Your task to perform on an android device: add a label to a message in the gmail app Image 0: 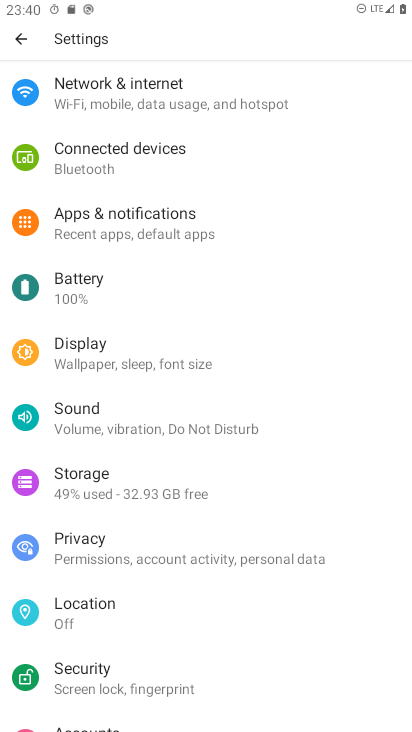
Step 0: press home button
Your task to perform on an android device: add a label to a message in the gmail app Image 1: 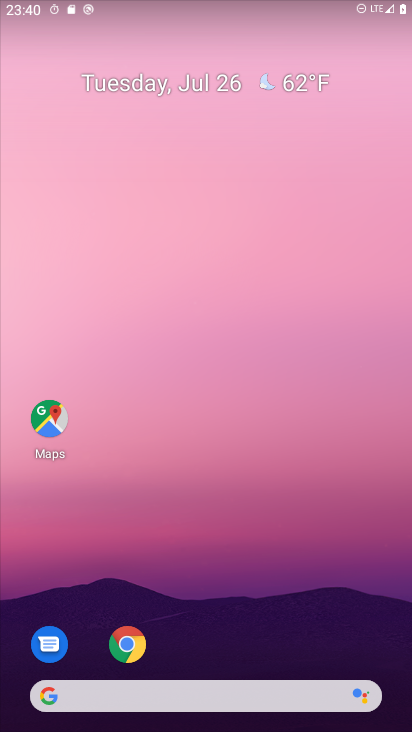
Step 1: drag from (235, 591) to (238, 7)
Your task to perform on an android device: add a label to a message in the gmail app Image 2: 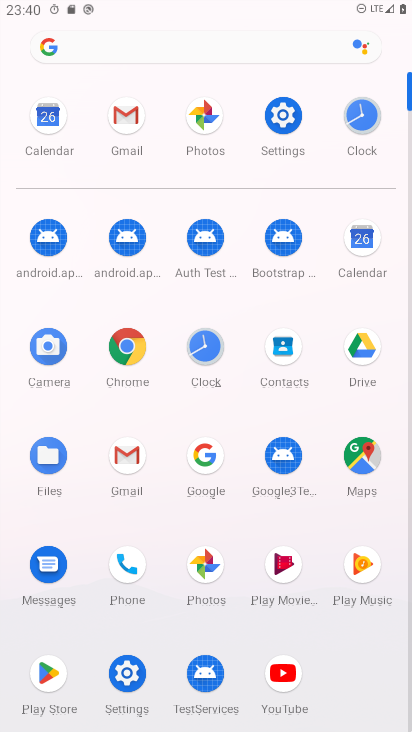
Step 2: click (121, 186)
Your task to perform on an android device: add a label to a message in the gmail app Image 3: 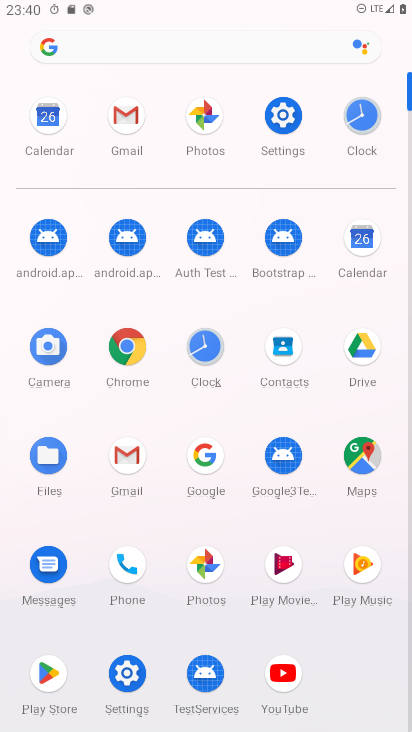
Step 3: click (131, 137)
Your task to perform on an android device: add a label to a message in the gmail app Image 4: 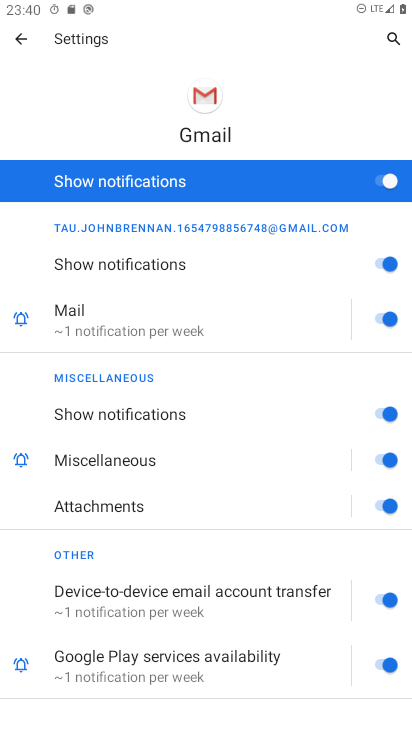
Step 4: click (16, 40)
Your task to perform on an android device: add a label to a message in the gmail app Image 5: 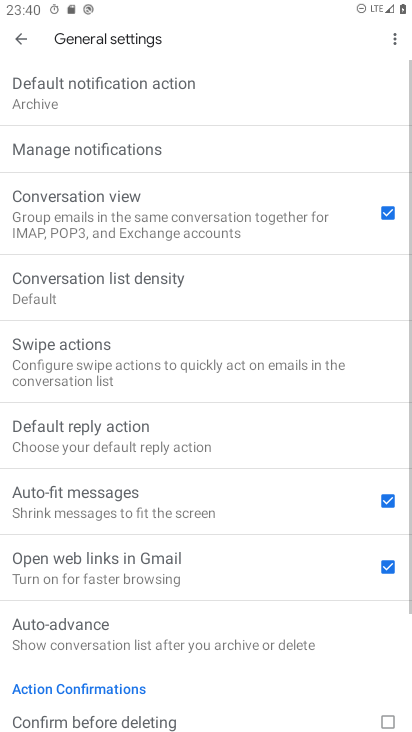
Step 5: click (16, 40)
Your task to perform on an android device: add a label to a message in the gmail app Image 6: 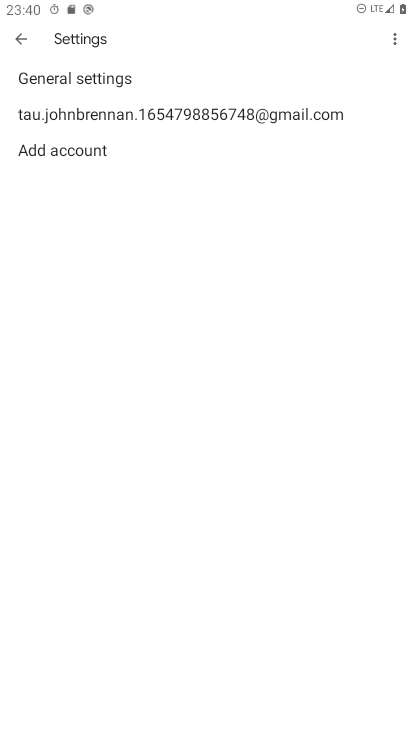
Step 6: click (16, 40)
Your task to perform on an android device: add a label to a message in the gmail app Image 7: 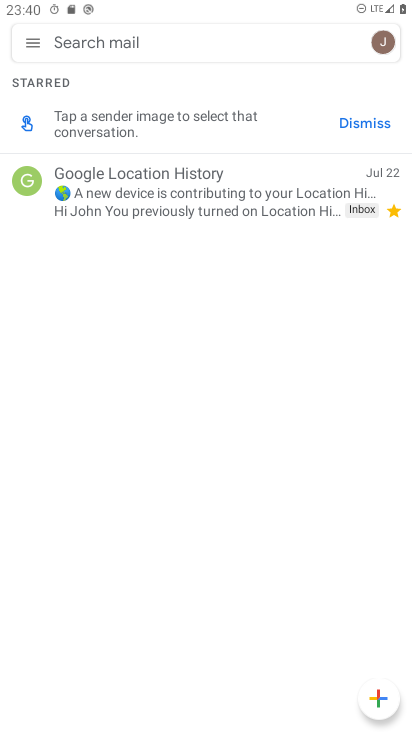
Step 7: click (26, 39)
Your task to perform on an android device: add a label to a message in the gmail app Image 8: 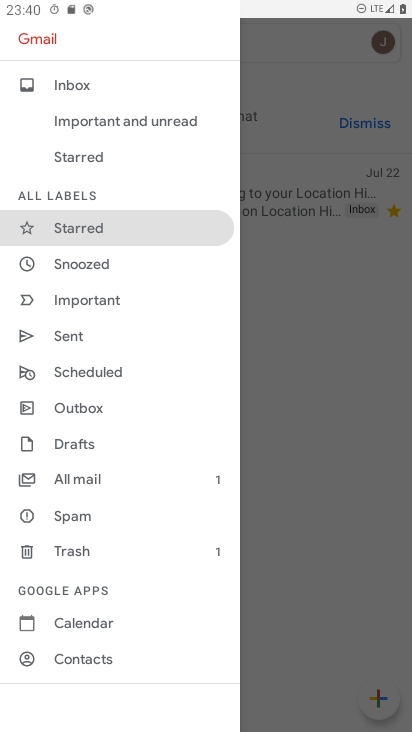
Step 8: click (90, 474)
Your task to perform on an android device: add a label to a message in the gmail app Image 9: 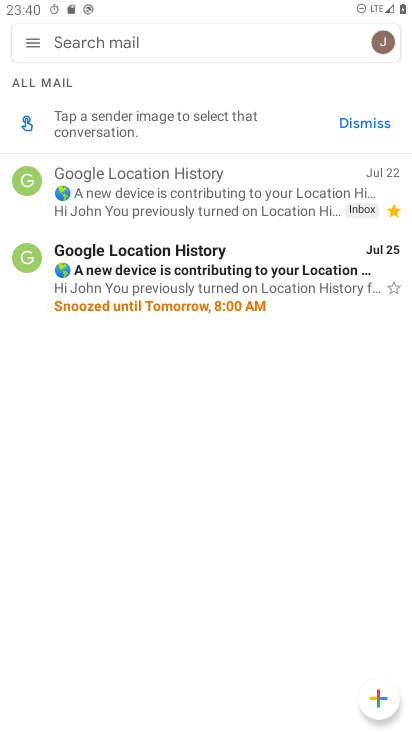
Step 9: click (139, 280)
Your task to perform on an android device: add a label to a message in the gmail app Image 10: 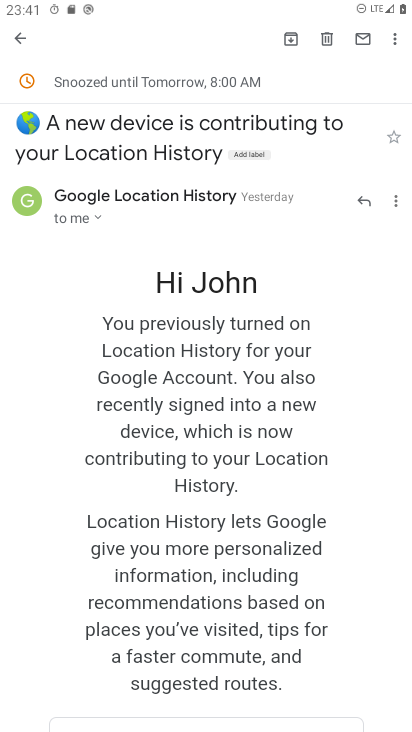
Step 10: click (253, 154)
Your task to perform on an android device: add a label to a message in the gmail app Image 11: 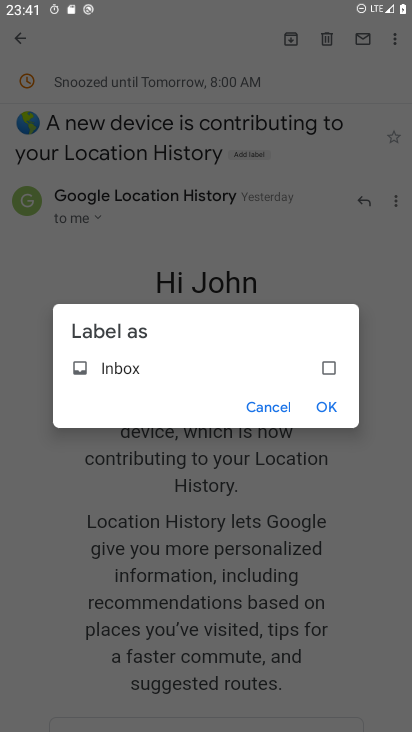
Step 11: click (332, 367)
Your task to perform on an android device: add a label to a message in the gmail app Image 12: 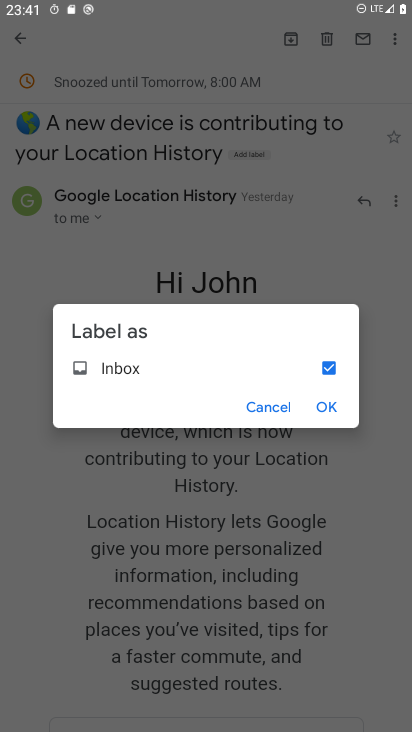
Step 12: click (332, 416)
Your task to perform on an android device: add a label to a message in the gmail app Image 13: 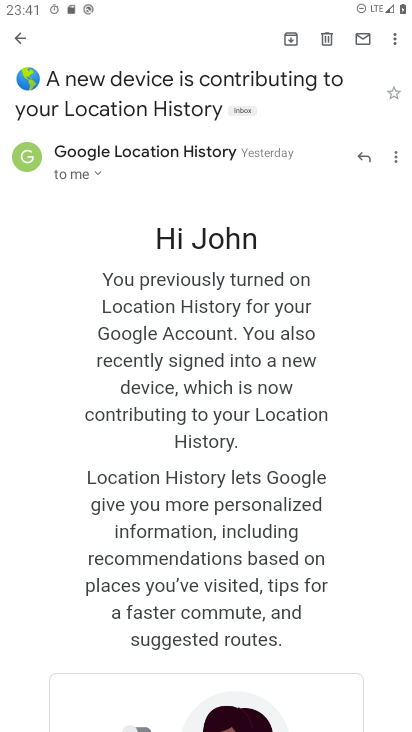
Step 13: task complete